Your task to perform on an android device: Open the calendar app, open the side menu, and click the "Day" option Image 0: 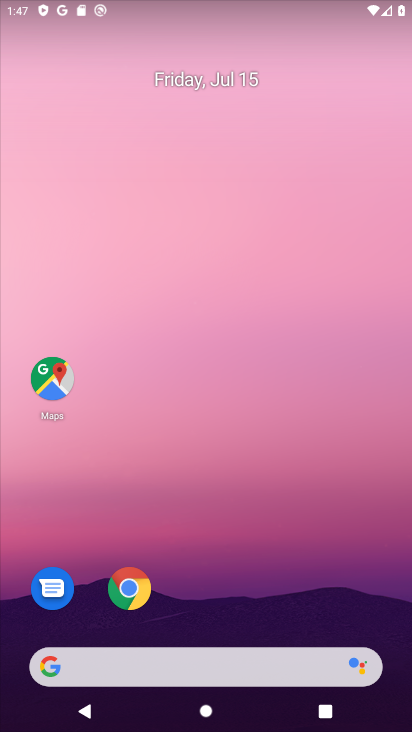
Step 0: drag from (349, 599) to (248, 96)
Your task to perform on an android device: Open the calendar app, open the side menu, and click the "Day" option Image 1: 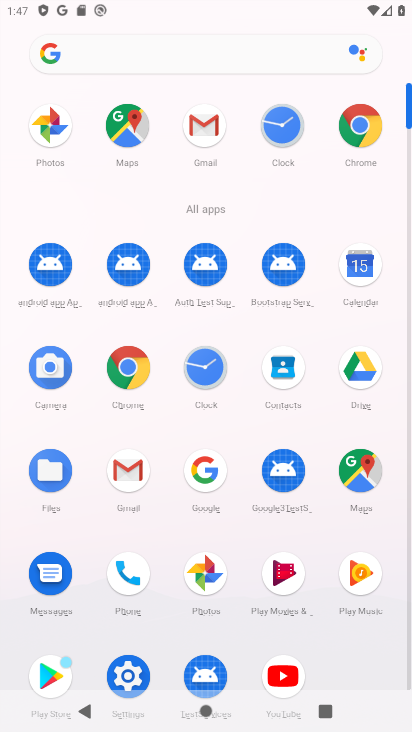
Step 1: click (114, 665)
Your task to perform on an android device: Open the calendar app, open the side menu, and click the "Day" option Image 2: 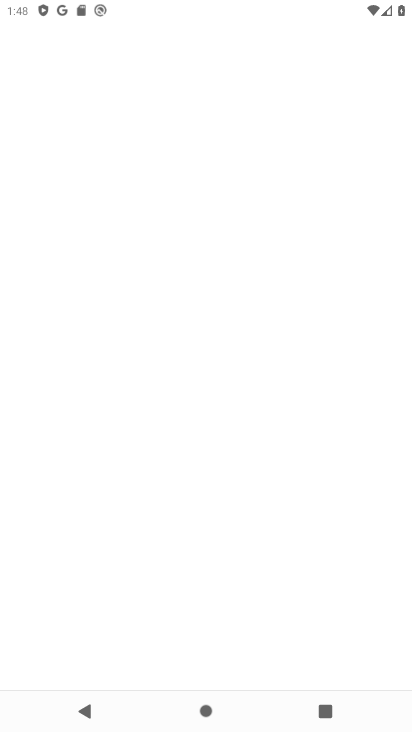
Step 2: press home button
Your task to perform on an android device: Open the calendar app, open the side menu, and click the "Day" option Image 3: 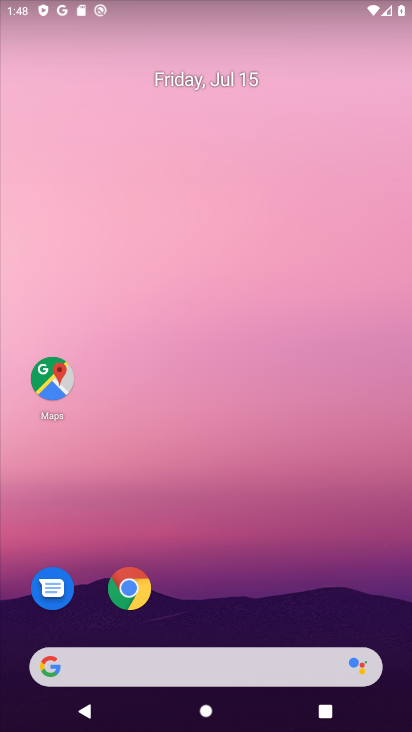
Step 3: drag from (322, 624) to (147, 11)
Your task to perform on an android device: Open the calendar app, open the side menu, and click the "Day" option Image 4: 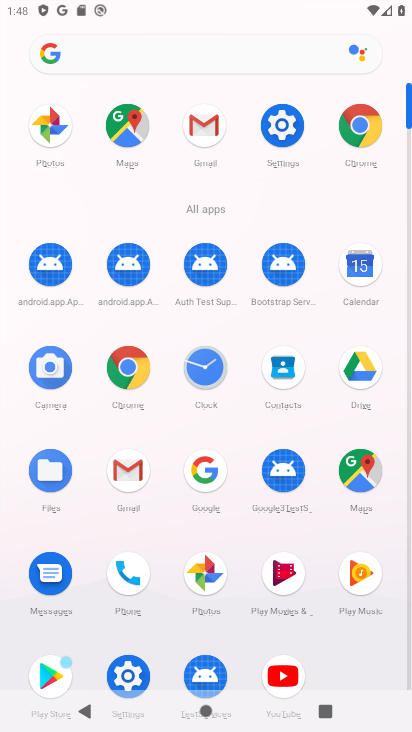
Step 4: click (286, 138)
Your task to perform on an android device: Open the calendar app, open the side menu, and click the "Day" option Image 5: 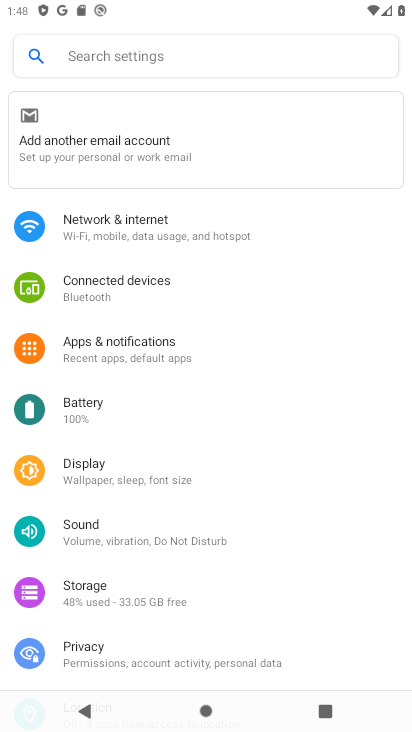
Step 5: press home button
Your task to perform on an android device: Open the calendar app, open the side menu, and click the "Day" option Image 6: 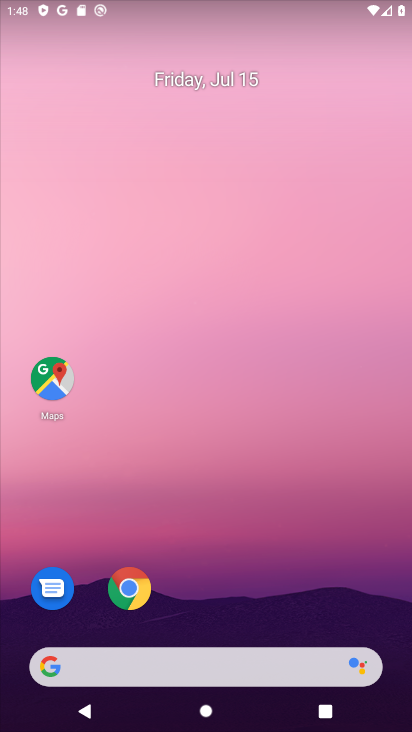
Step 6: drag from (238, 600) to (239, 290)
Your task to perform on an android device: Open the calendar app, open the side menu, and click the "Day" option Image 7: 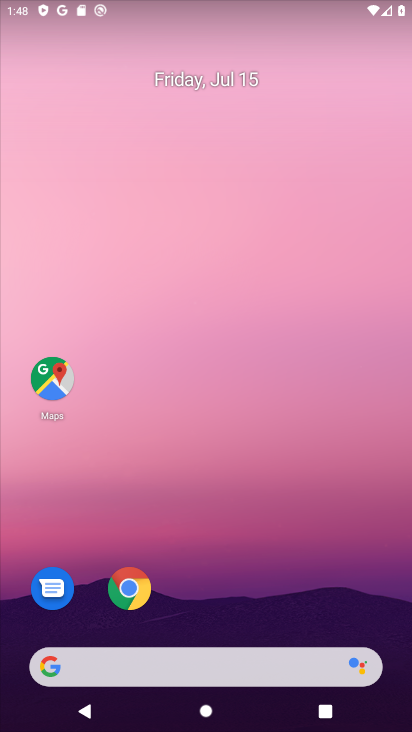
Step 7: drag from (244, 591) to (241, 121)
Your task to perform on an android device: Open the calendar app, open the side menu, and click the "Day" option Image 8: 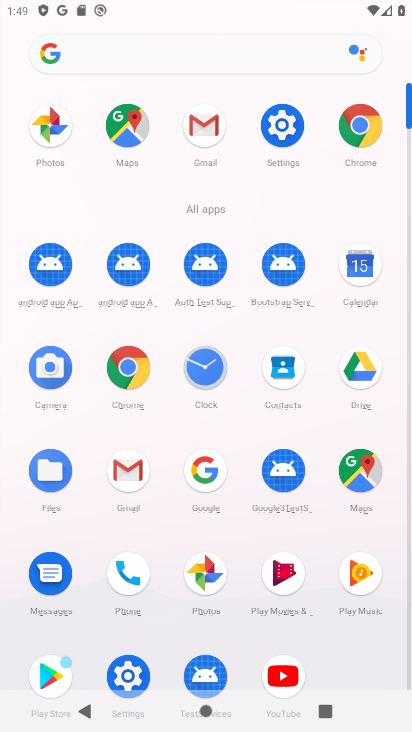
Step 8: click (348, 289)
Your task to perform on an android device: Open the calendar app, open the side menu, and click the "Day" option Image 9: 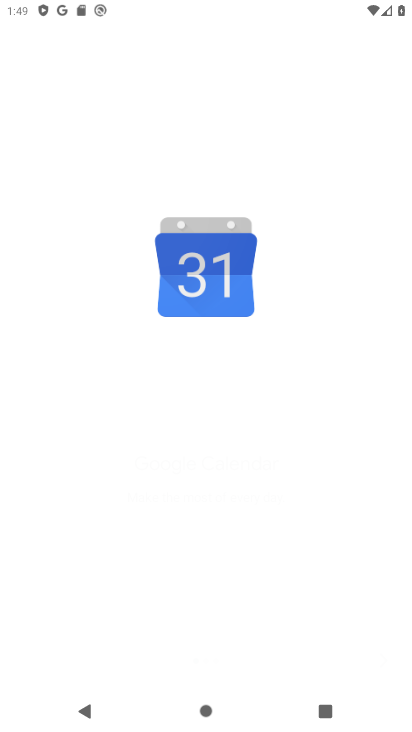
Step 9: task complete